Your task to perform on an android device: turn vacation reply on in the gmail app Image 0: 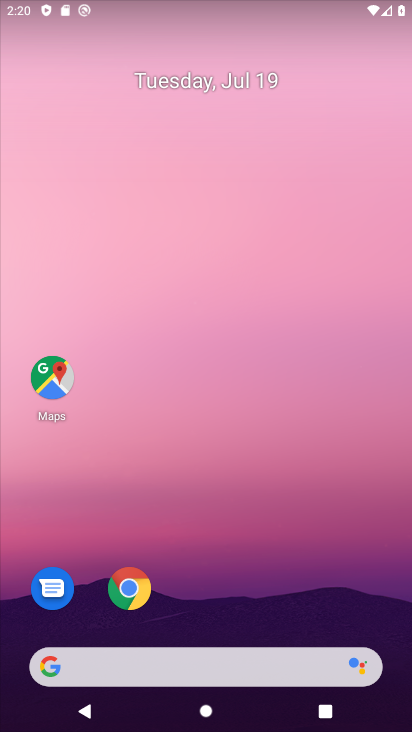
Step 0: press home button
Your task to perform on an android device: turn vacation reply on in the gmail app Image 1: 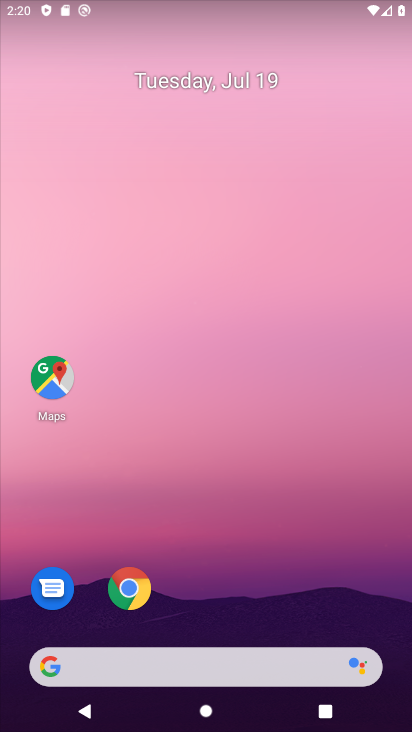
Step 1: drag from (192, 615) to (211, 262)
Your task to perform on an android device: turn vacation reply on in the gmail app Image 2: 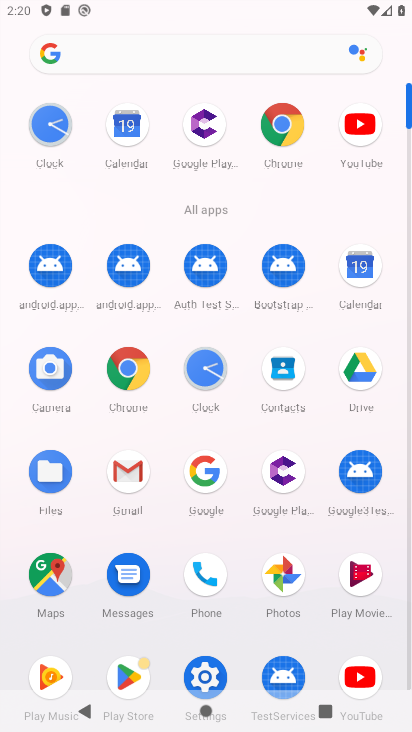
Step 2: click (122, 476)
Your task to perform on an android device: turn vacation reply on in the gmail app Image 3: 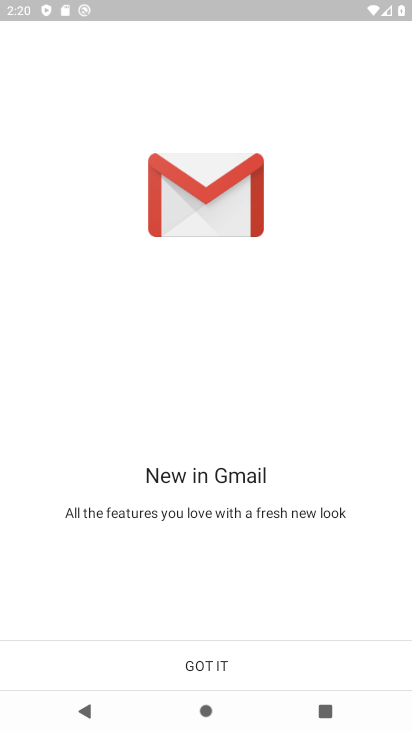
Step 3: click (215, 670)
Your task to perform on an android device: turn vacation reply on in the gmail app Image 4: 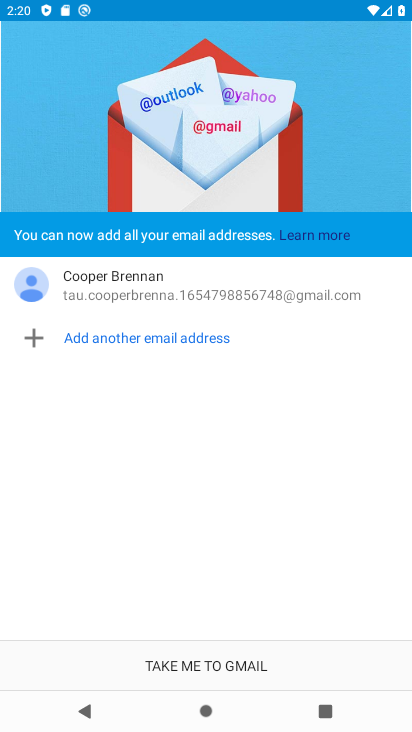
Step 4: click (215, 670)
Your task to perform on an android device: turn vacation reply on in the gmail app Image 5: 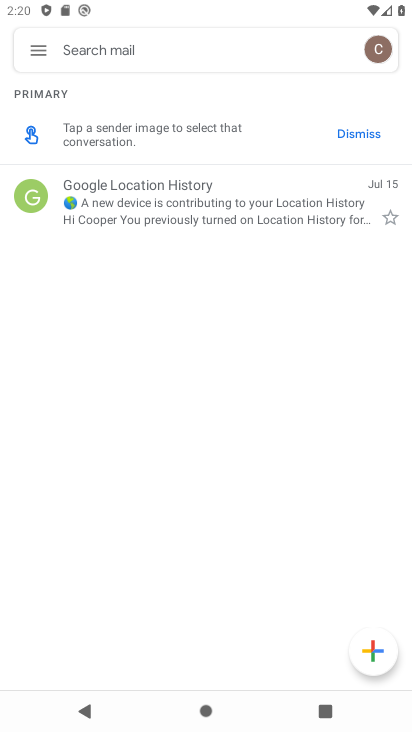
Step 5: click (34, 45)
Your task to perform on an android device: turn vacation reply on in the gmail app Image 6: 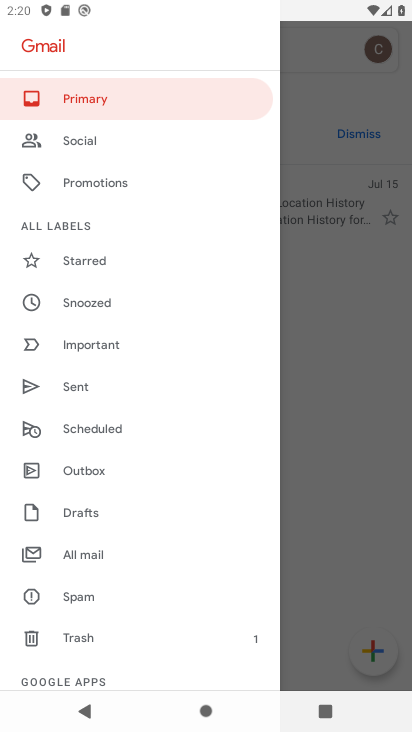
Step 6: drag from (125, 601) to (125, 405)
Your task to perform on an android device: turn vacation reply on in the gmail app Image 7: 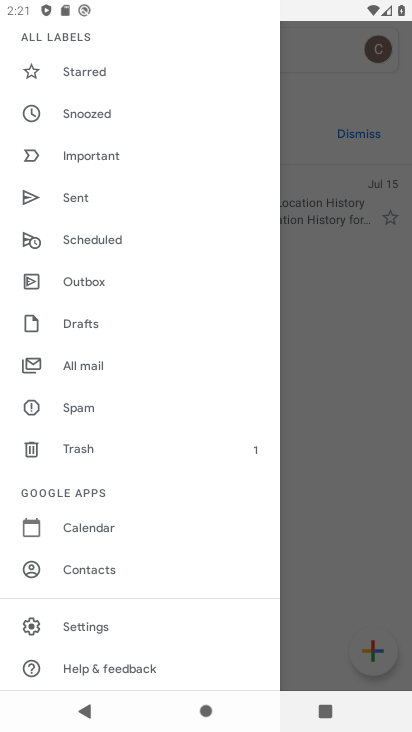
Step 7: click (77, 625)
Your task to perform on an android device: turn vacation reply on in the gmail app Image 8: 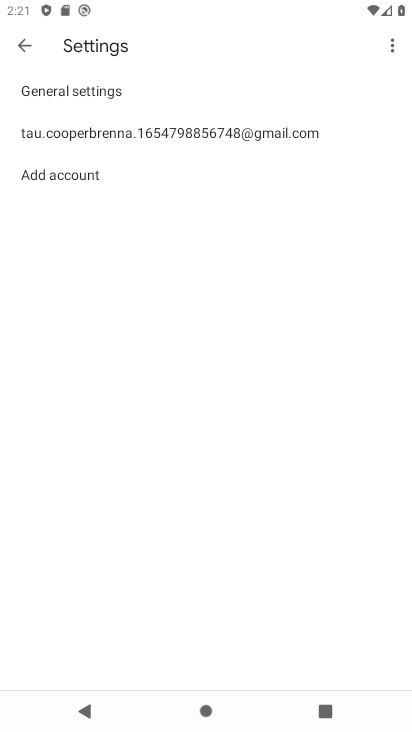
Step 8: click (189, 129)
Your task to perform on an android device: turn vacation reply on in the gmail app Image 9: 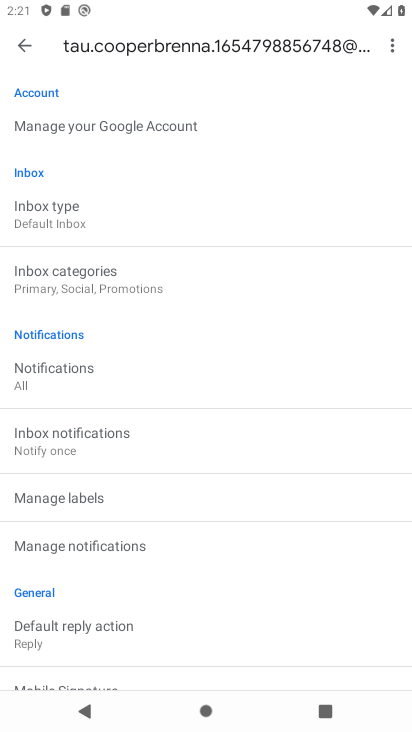
Step 9: drag from (127, 541) to (162, 294)
Your task to perform on an android device: turn vacation reply on in the gmail app Image 10: 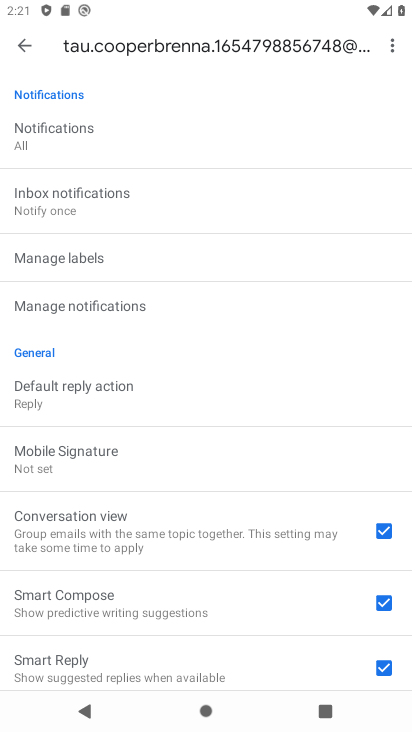
Step 10: drag from (142, 488) to (159, 332)
Your task to perform on an android device: turn vacation reply on in the gmail app Image 11: 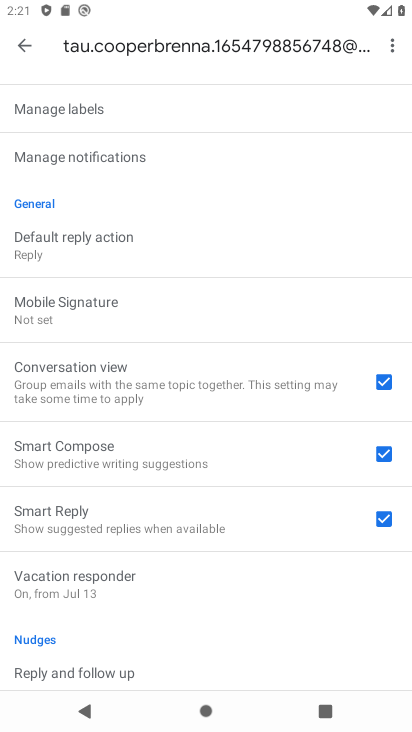
Step 11: click (87, 607)
Your task to perform on an android device: turn vacation reply on in the gmail app Image 12: 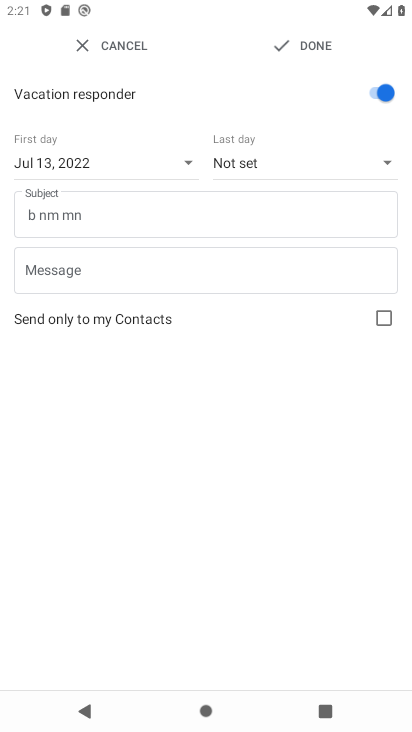
Step 12: task complete